Your task to perform on an android device: toggle notifications settings in the gmail app Image 0: 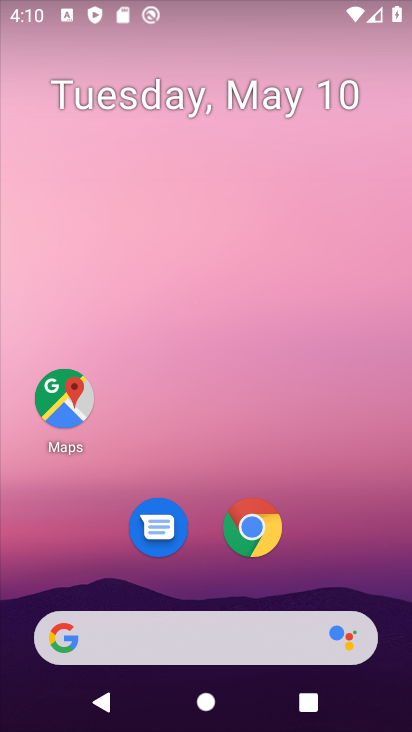
Step 0: drag from (352, 543) to (270, 23)
Your task to perform on an android device: toggle notifications settings in the gmail app Image 1: 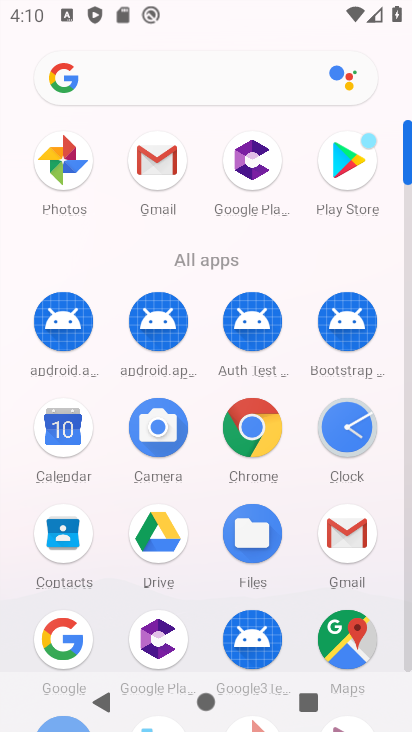
Step 1: click (334, 521)
Your task to perform on an android device: toggle notifications settings in the gmail app Image 2: 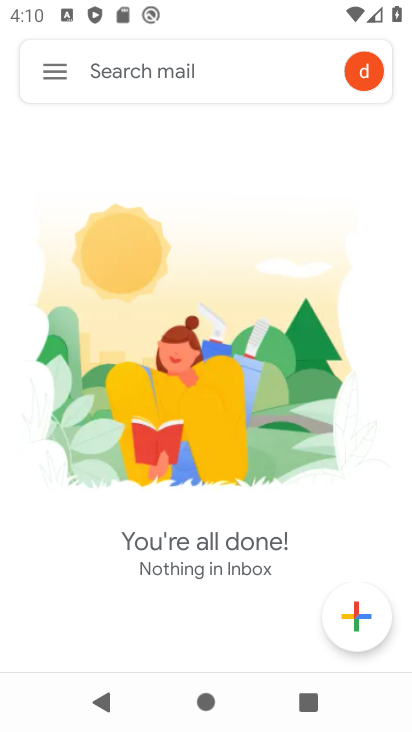
Step 2: click (61, 69)
Your task to perform on an android device: toggle notifications settings in the gmail app Image 3: 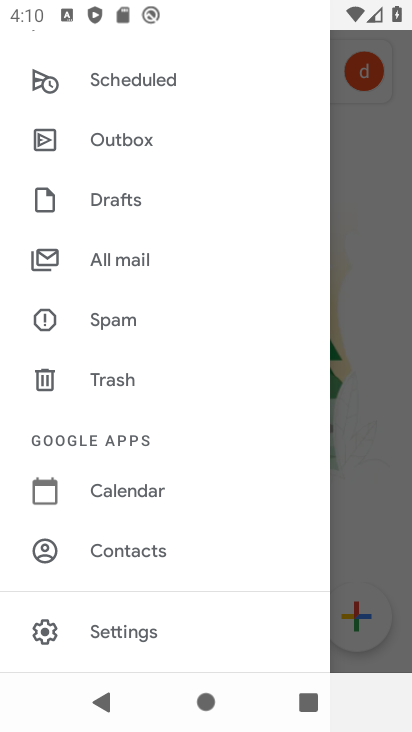
Step 3: click (100, 619)
Your task to perform on an android device: toggle notifications settings in the gmail app Image 4: 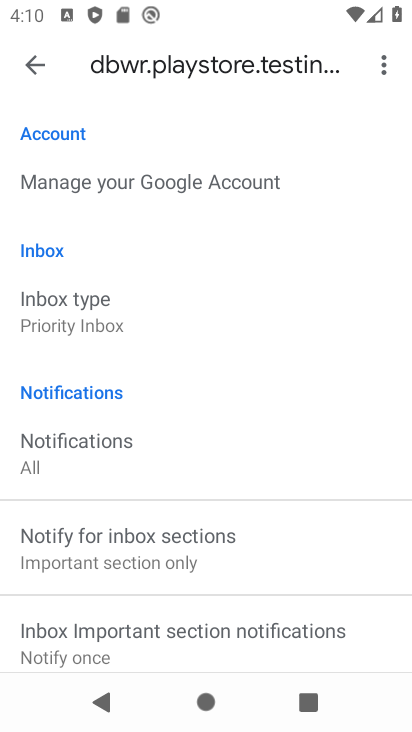
Step 4: drag from (182, 490) to (249, 92)
Your task to perform on an android device: toggle notifications settings in the gmail app Image 5: 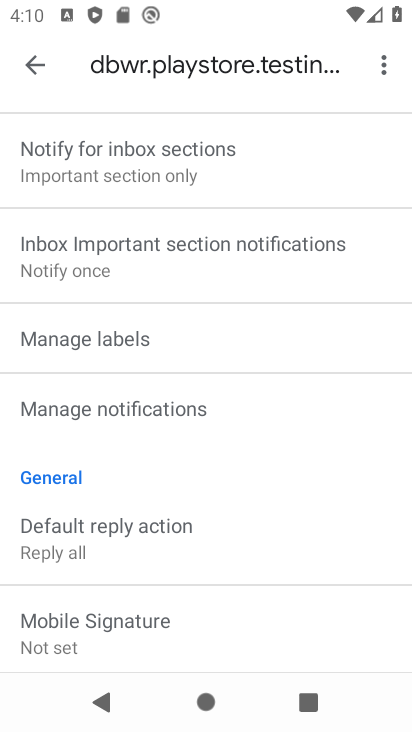
Step 5: click (172, 407)
Your task to perform on an android device: toggle notifications settings in the gmail app Image 6: 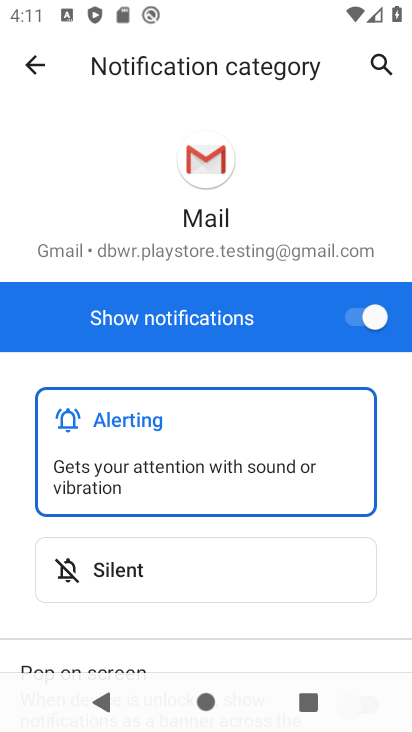
Step 6: click (359, 316)
Your task to perform on an android device: toggle notifications settings in the gmail app Image 7: 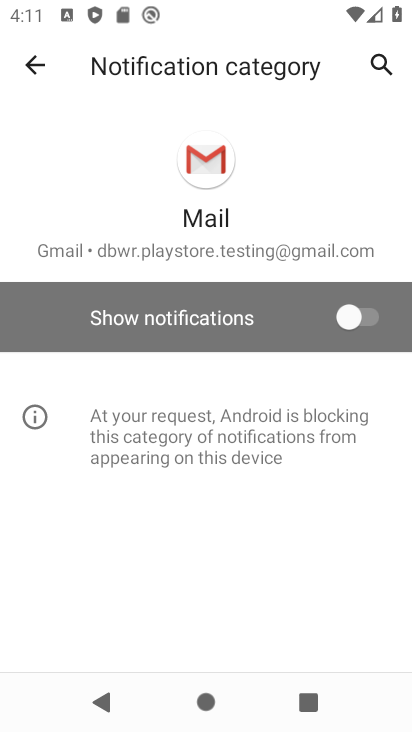
Step 7: task complete